Your task to perform on an android device: see tabs open on other devices in the chrome app Image 0: 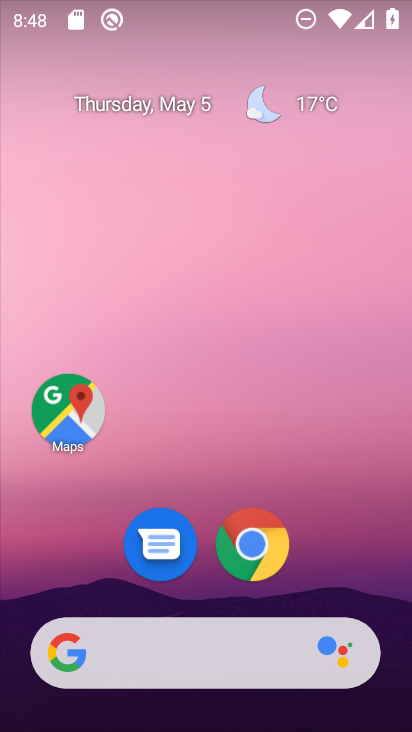
Step 0: drag from (378, 623) to (289, 41)
Your task to perform on an android device: see tabs open on other devices in the chrome app Image 1: 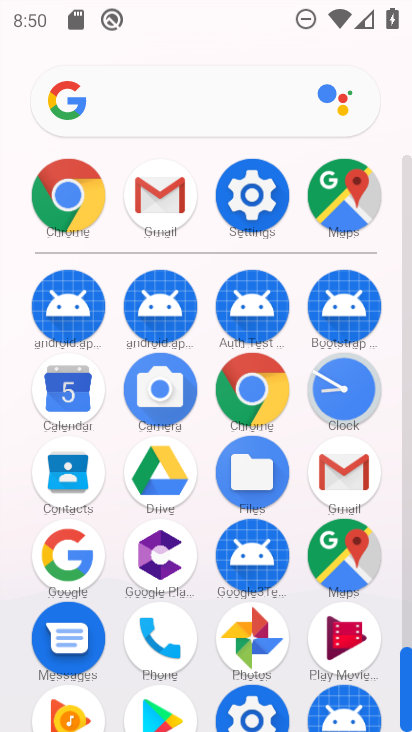
Step 1: click (241, 397)
Your task to perform on an android device: see tabs open on other devices in the chrome app Image 2: 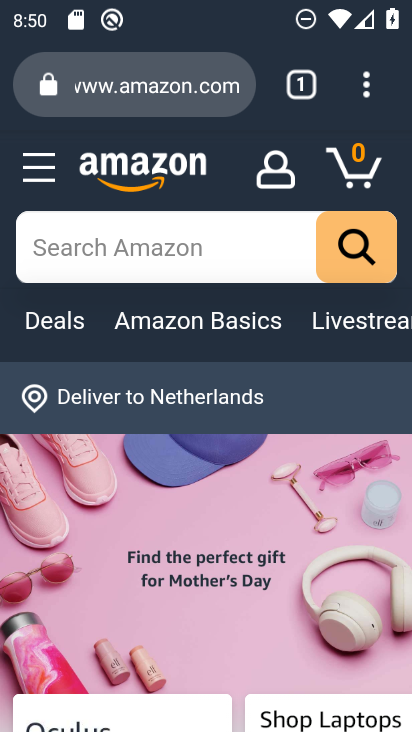
Step 2: task complete